Your task to perform on an android device: Open Google Maps Image 0: 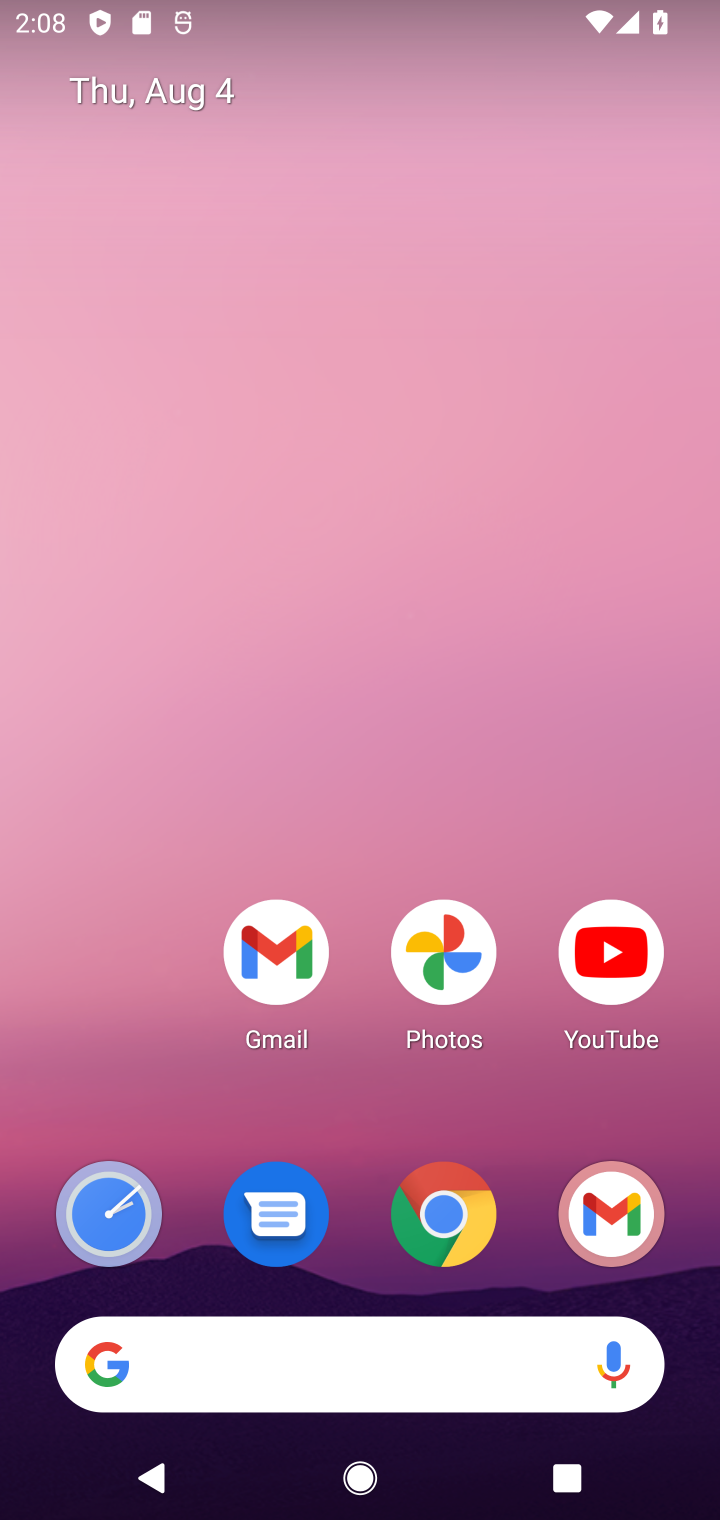
Step 0: drag from (119, 1095) to (114, 0)
Your task to perform on an android device: Open Google Maps Image 1: 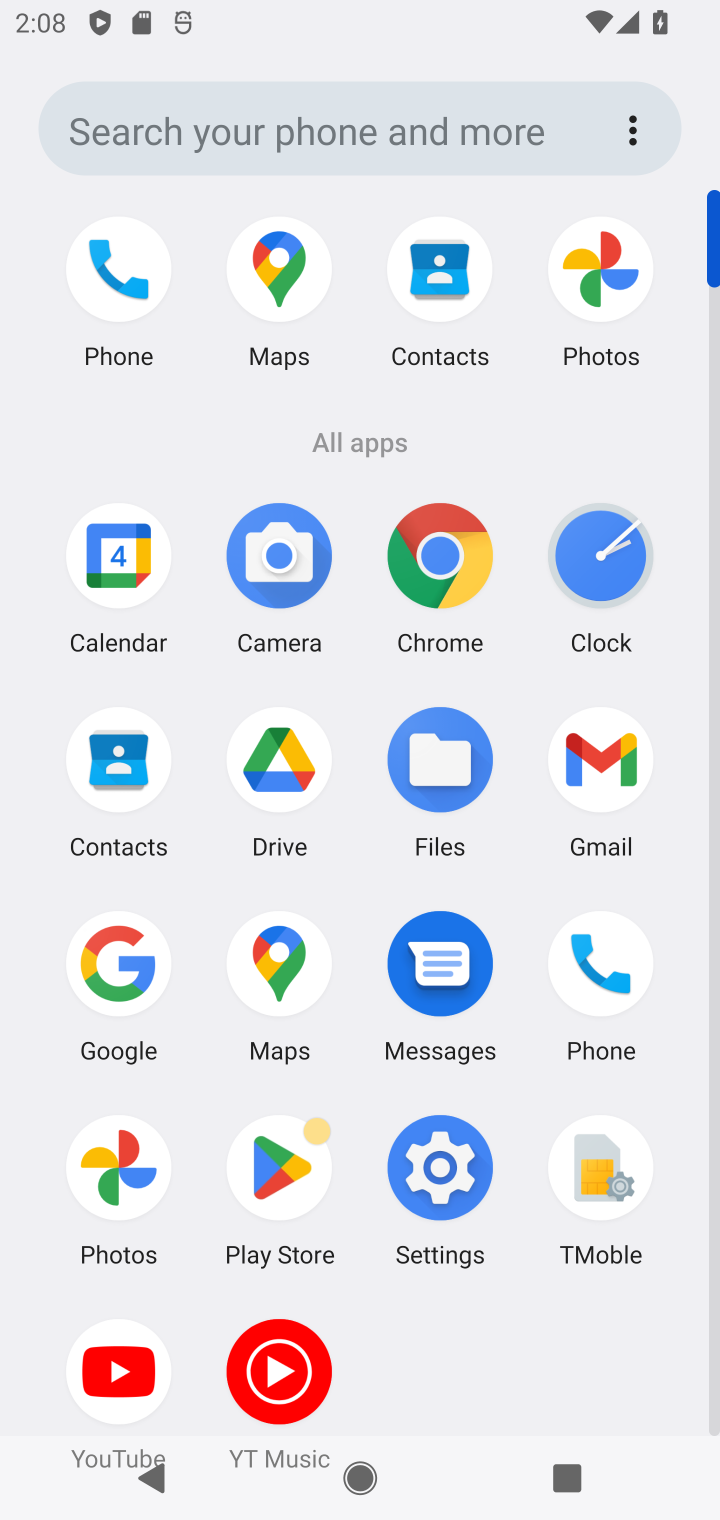
Step 1: click (290, 980)
Your task to perform on an android device: Open Google Maps Image 2: 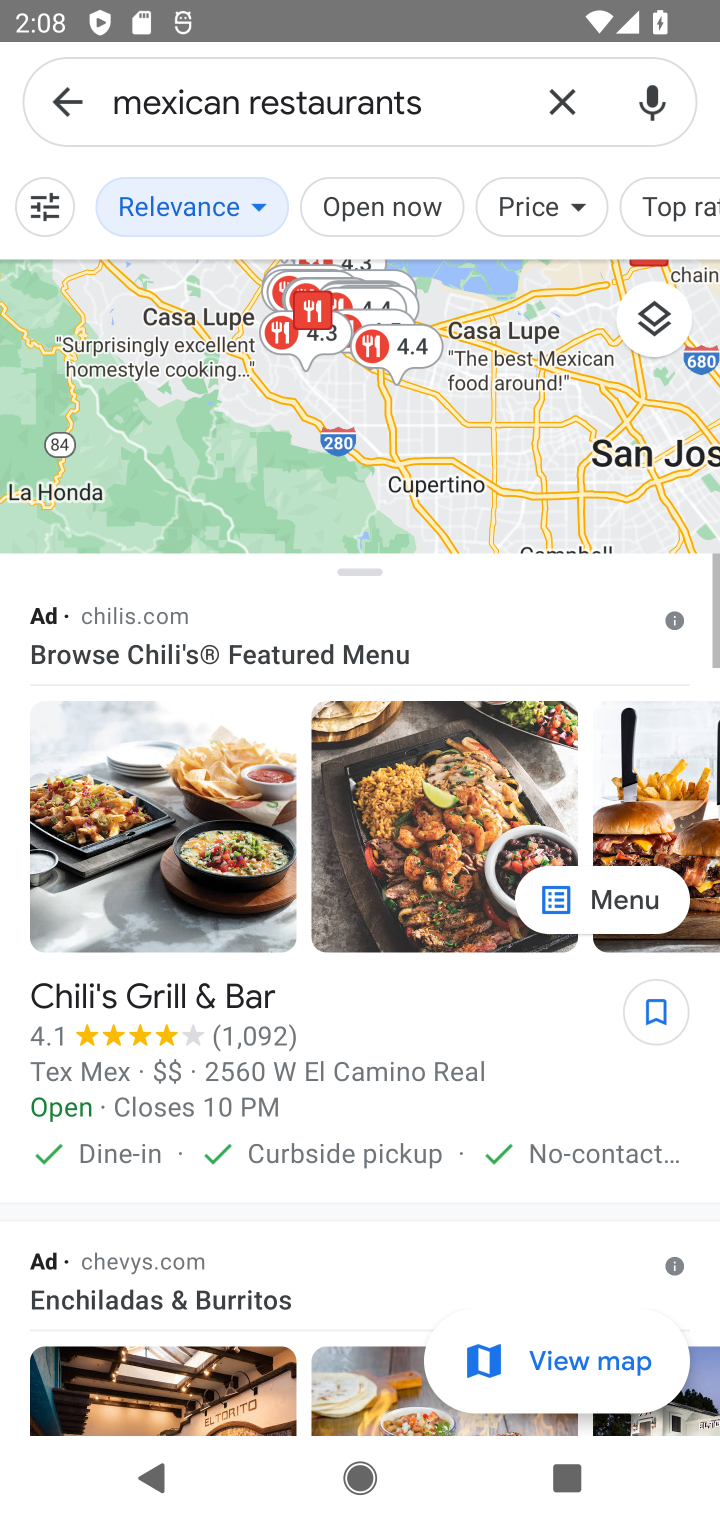
Step 2: task complete